Your task to perform on an android device: Go to privacy settings Image 0: 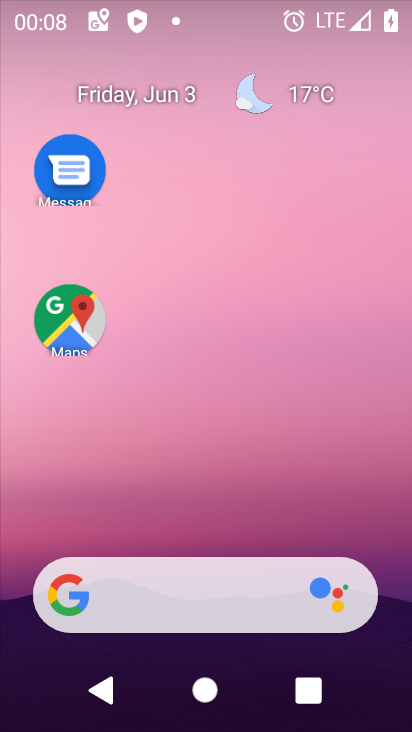
Step 0: press home button
Your task to perform on an android device: Go to privacy settings Image 1: 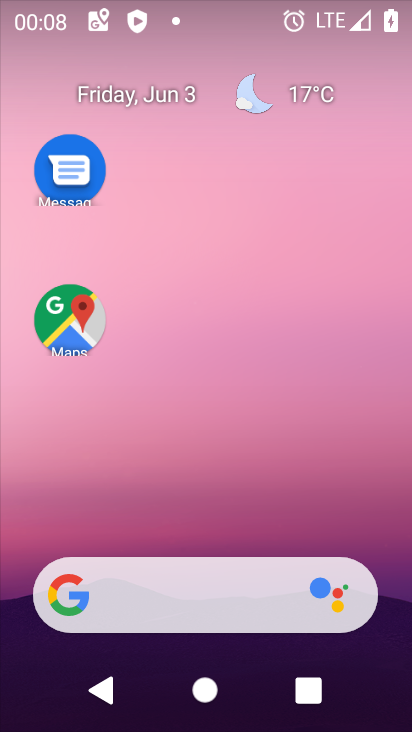
Step 1: press home button
Your task to perform on an android device: Go to privacy settings Image 2: 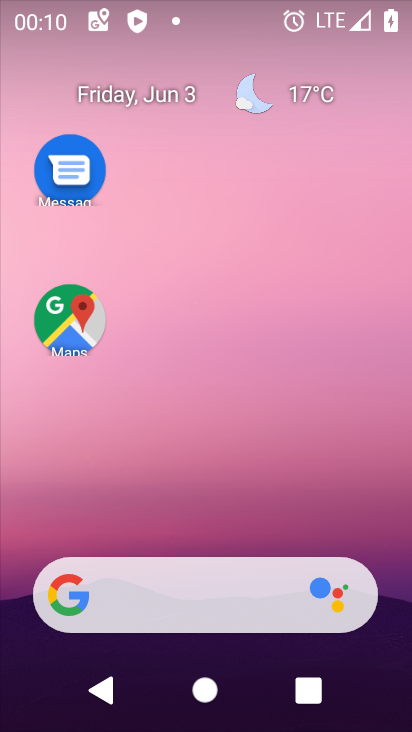
Step 2: drag from (347, 485) to (245, 40)
Your task to perform on an android device: Go to privacy settings Image 3: 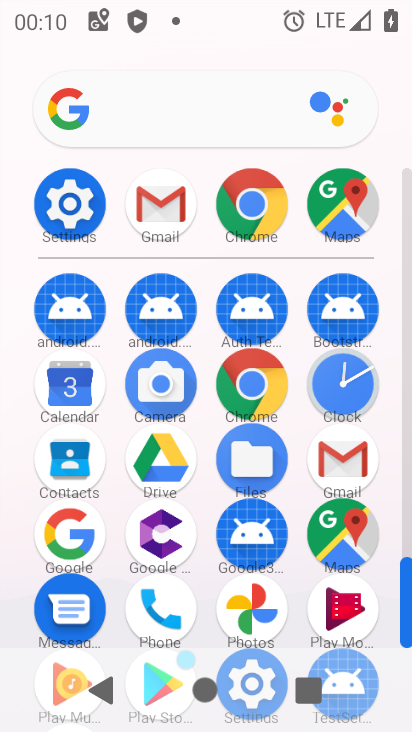
Step 3: drag from (223, 617) to (225, 161)
Your task to perform on an android device: Go to privacy settings Image 4: 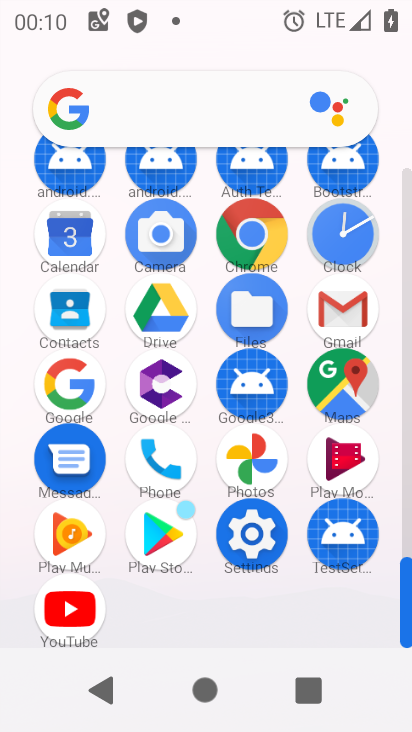
Step 4: click (270, 533)
Your task to perform on an android device: Go to privacy settings Image 5: 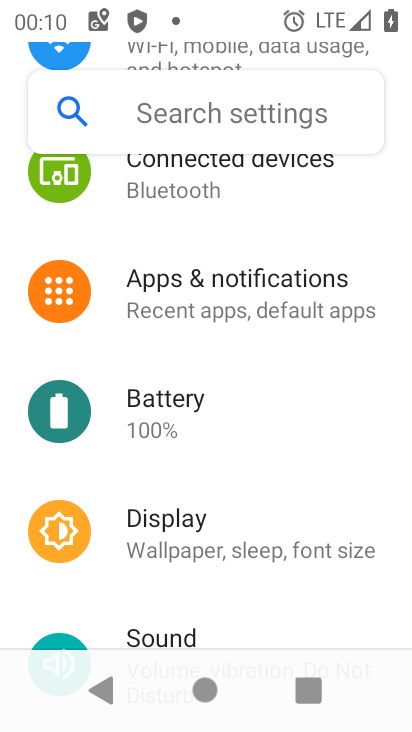
Step 5: drag from (194, 555) to (227, 271)
Your task to perform on an android device: Go to privacy settings Image 6: 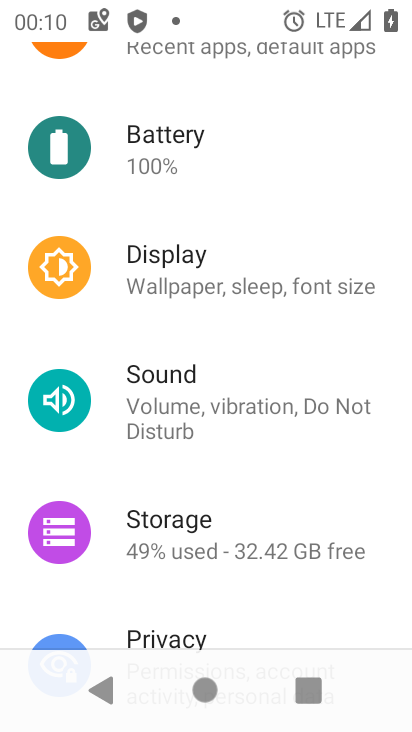
Step 6: drag from (187, 560) to (250, 187)
Your task to perform on an android device: Go to privacy settings Image 7: 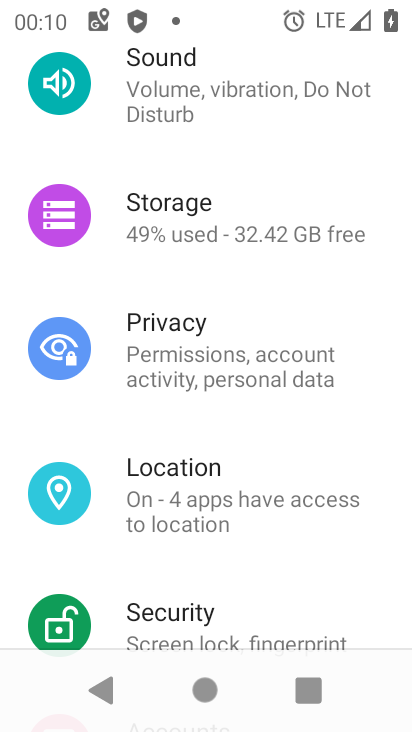
Step 7: click (142, 342)
Your task to perform on an android device: Go to privacy settings Image 8: 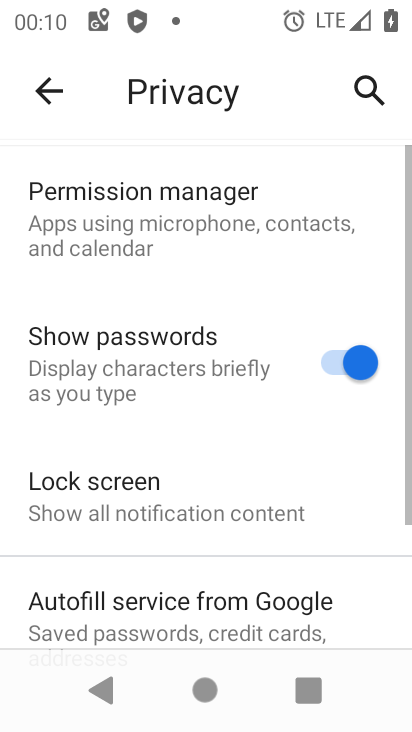
Step 8: task complete